Your task to perform on an android device: clear history in the chrome app Image 0: 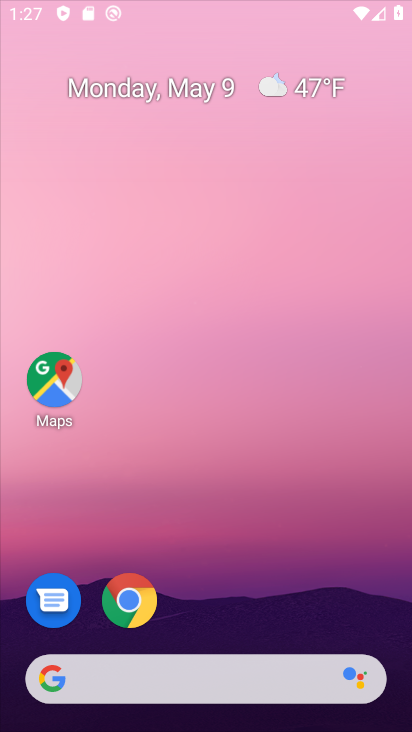
Step 0: drag from (200, 423) to (217, 110)
Your task to perform on an android device: clear history in the chrome app Image 1: 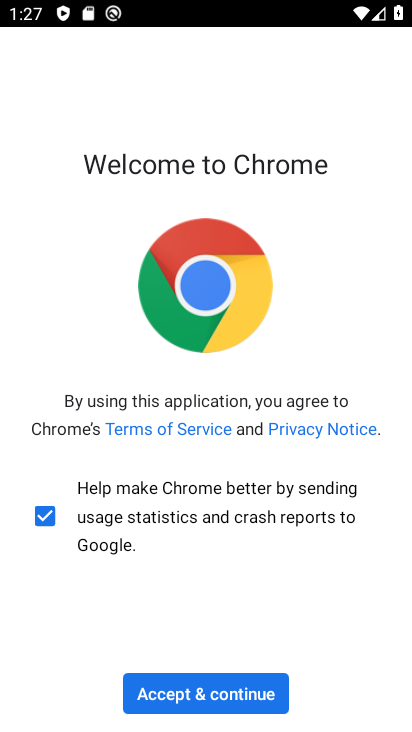
Step 1: press back button
Your task to perform on an android device: clear history in the chrome app Image 2: 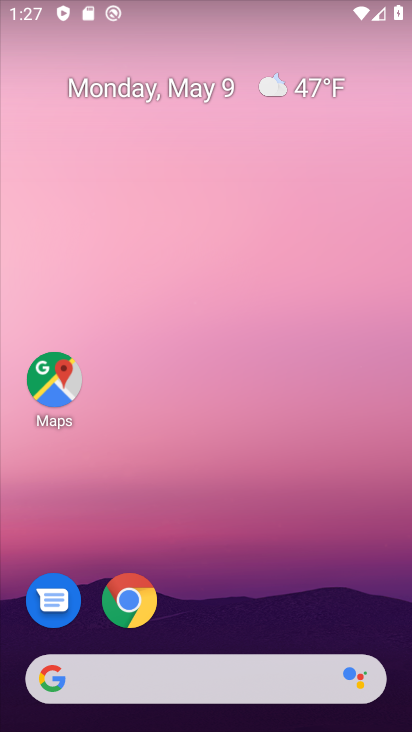
Step 2: click (137, 598)
Your task to perform on an android device: clear history in the chrome app Image 3: 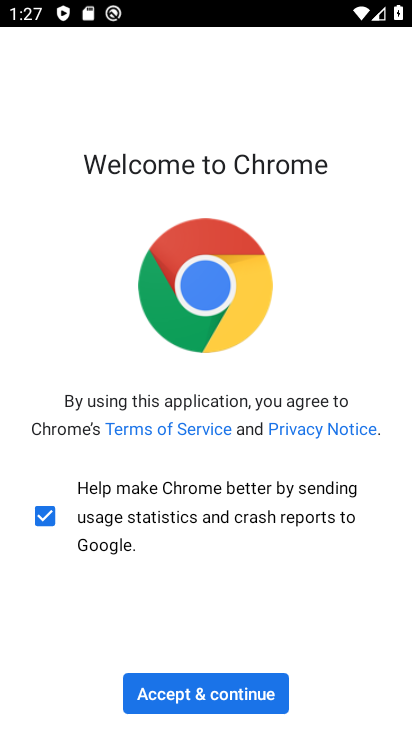
Step 3: click (218, 705)
Your task to perform on an android device: clear history in the chrome app Image 4: 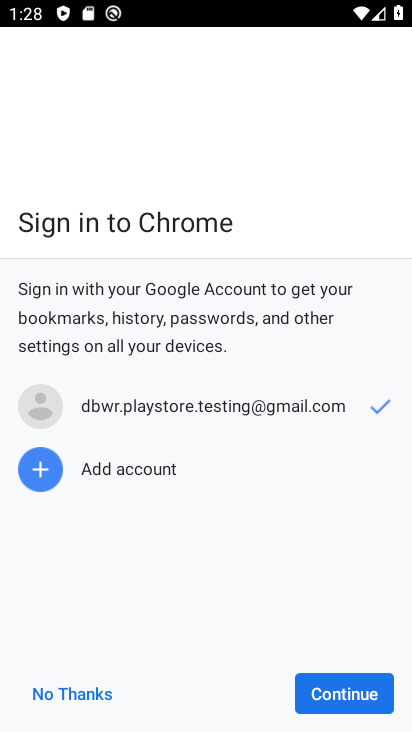
Step 4: click (302, 690)
Your task to perform on an android device: clear history in the chrome app Image 5: 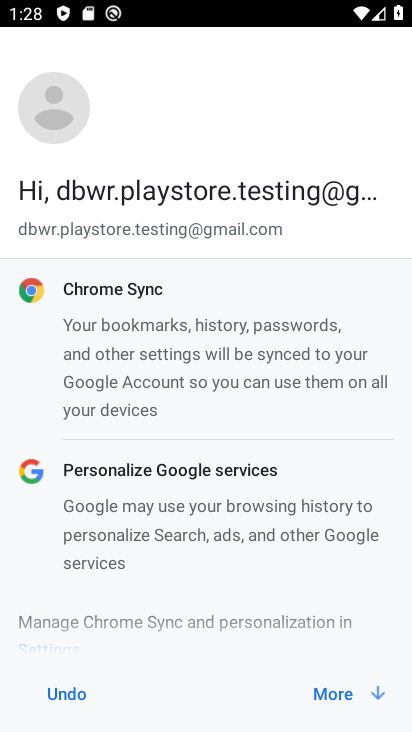
Step 5: click (356, 685)
Your task to perform on an android device: clear history in the chrome app Image 6: 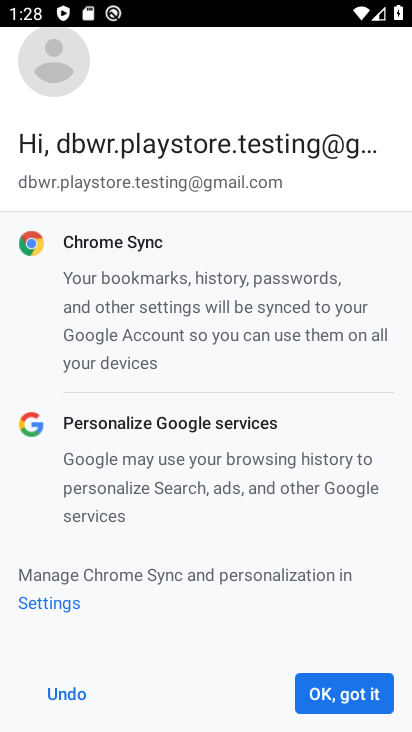
Step 6: click (341, 699)
Your task to perform on an android device: clear history in the chrome app Image 7: 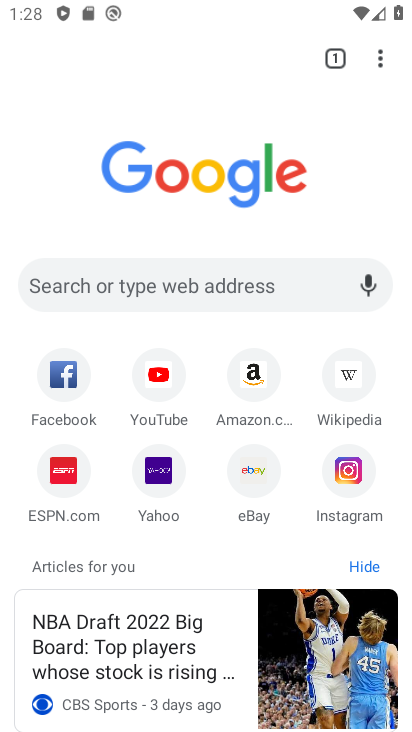
Step 7: click (381, 59)
Your task to perform on an android device: clear history in the chrome app Image 8: 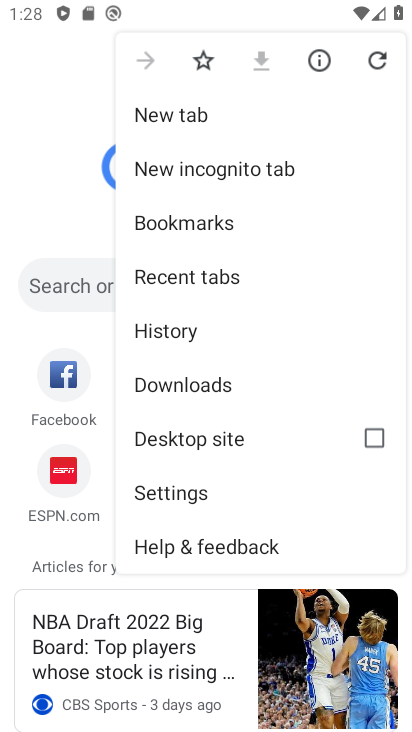
Step 8: click (196, 342)
Your task to perform on an android device: clear history in the chrome app Image 9: 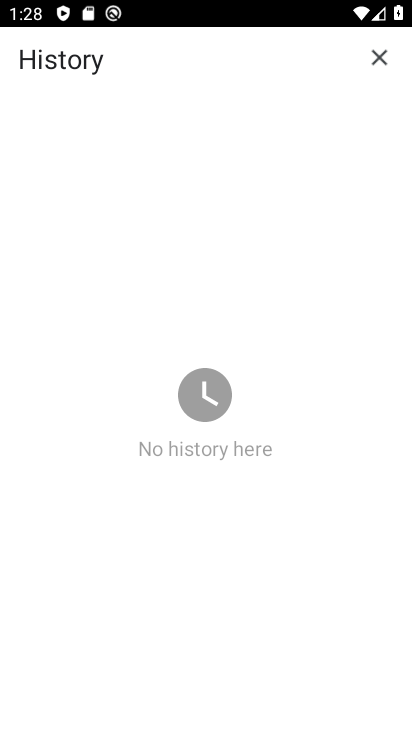
Step 9: task complete